Your task to perform on an android device: open a bookmark in the chrome app Image 0: 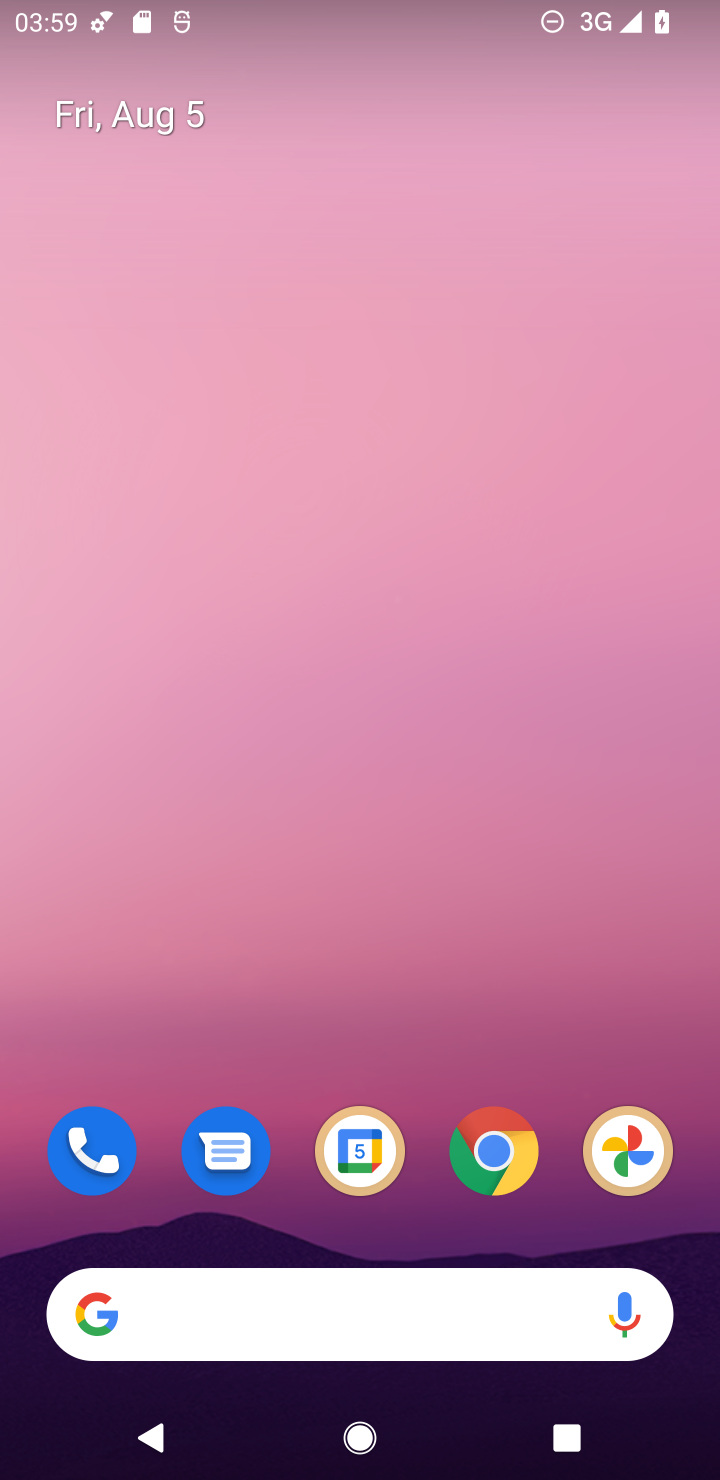
Step 0: click (514, 1169)
Your task to perform on an android device: open a bookmark in the chrome app Image 1: 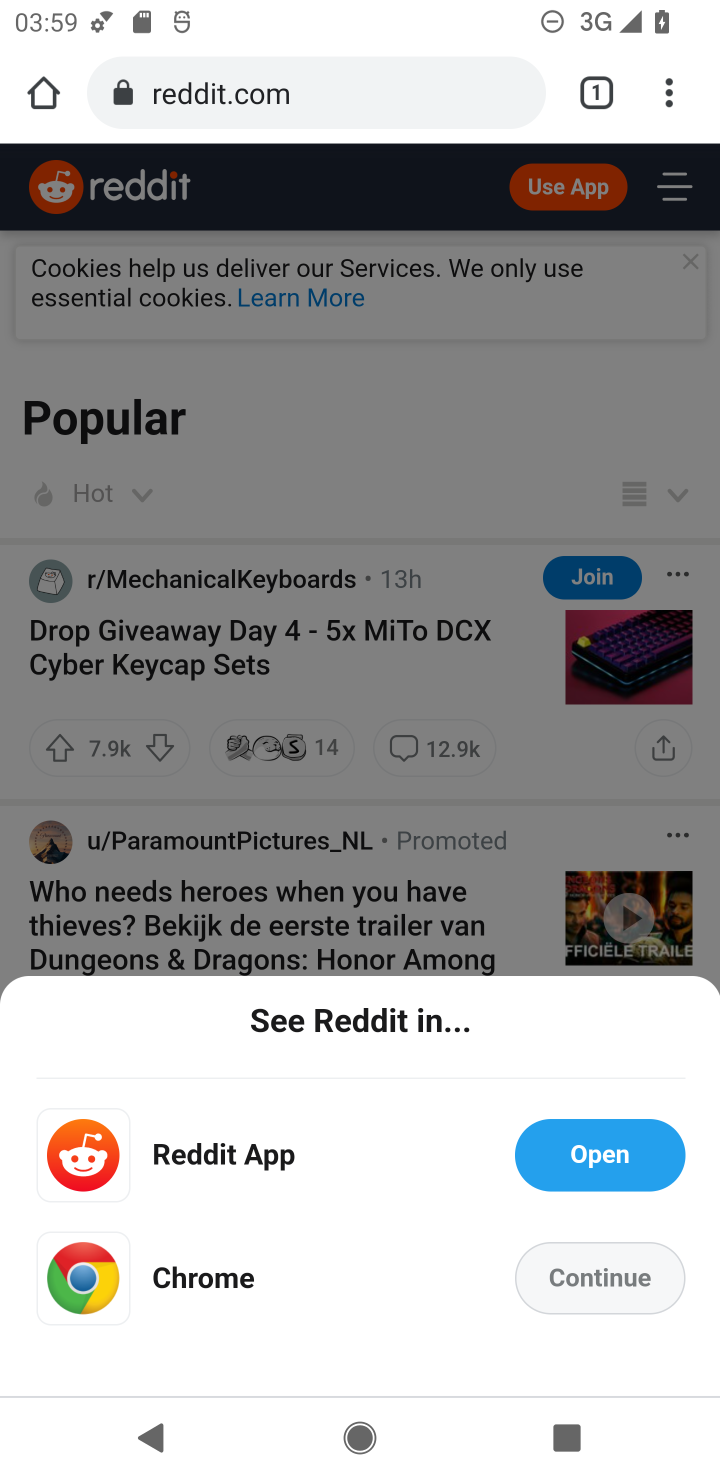
Step 1: click (666, 104)
Your task to perform on an android device: open a bookmark in the chrome app Image 2: 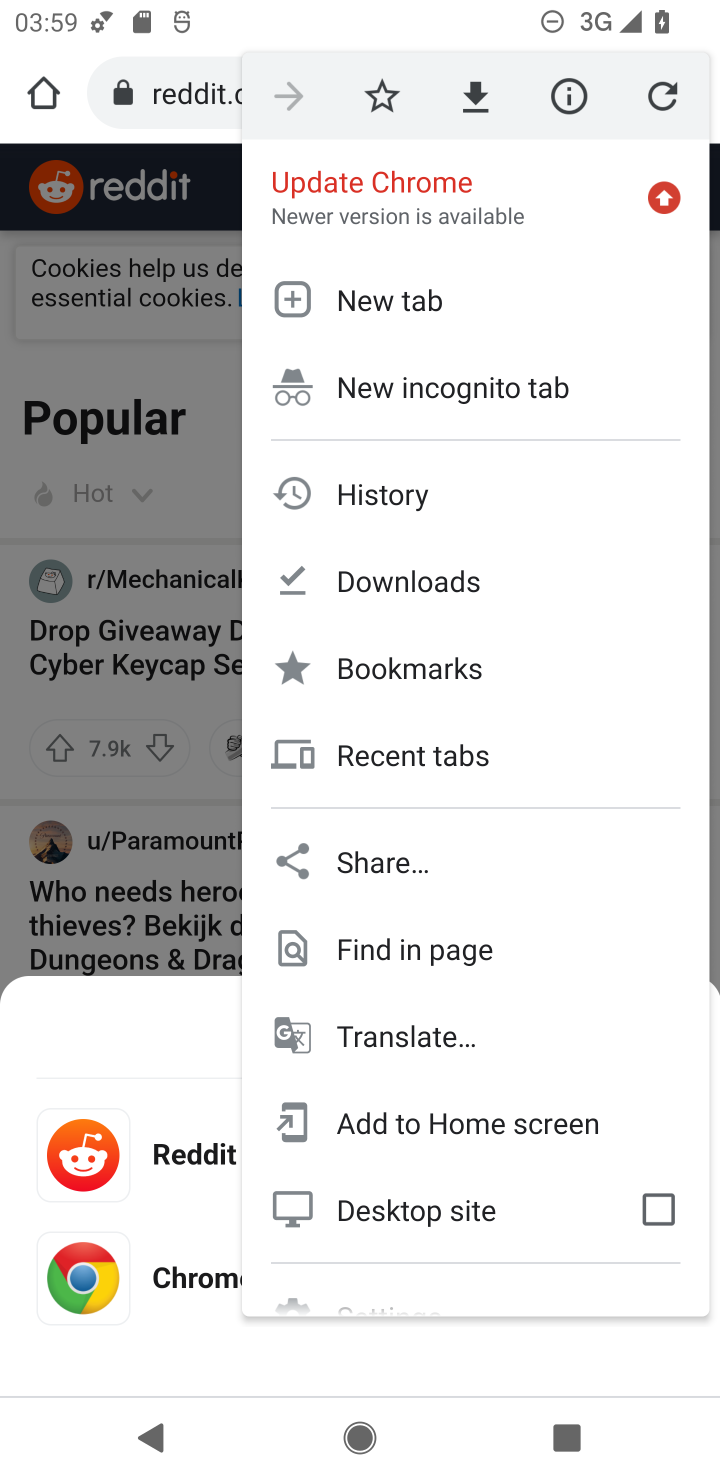
Step 2: click (463, 658)
Your task to perform on an android device: open a bookmark in the chrome app Image 3: 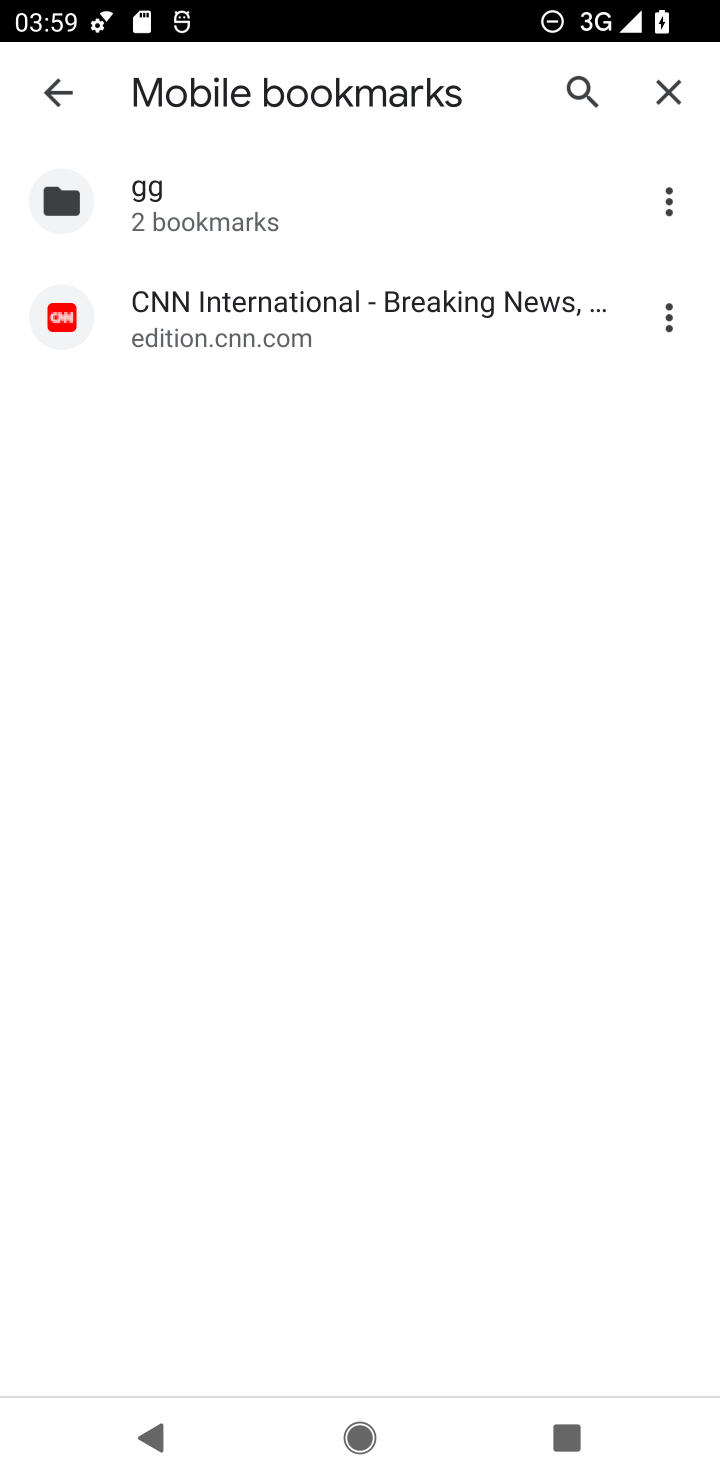
Step 3: click (388, 303)
Your task to perform on an android device: open a bookmark in the chrome app Image 4: 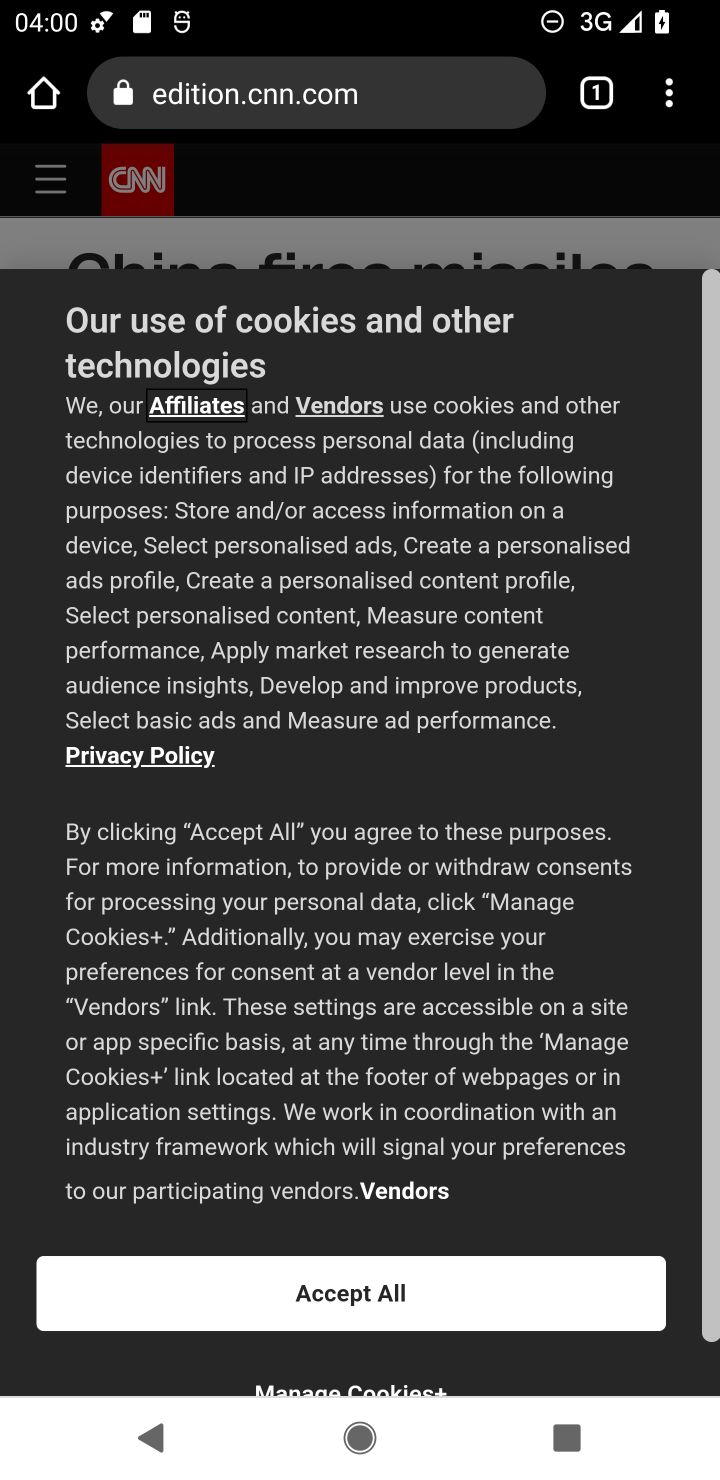
Step 4: task complete